Your task to perform on an android device: check storage Image 0: 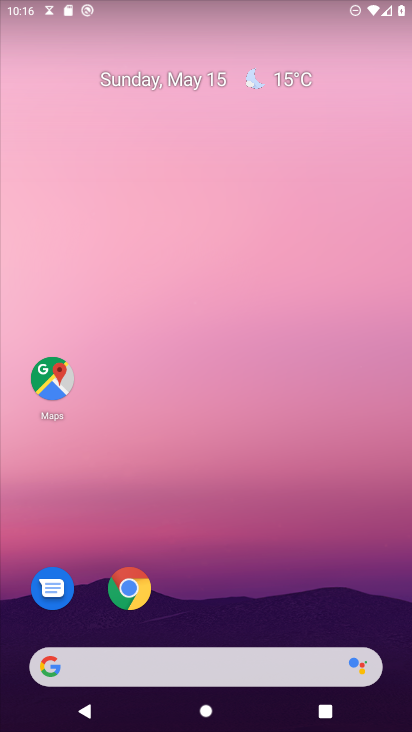
Step 0: drag from (252, 527) to (270, 140)
Your task to perform on an android device: check storage Image 1: 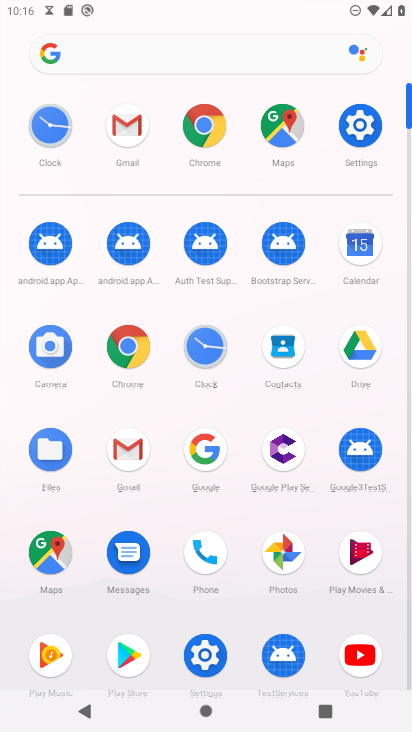
Step 1: click (356, 144)
Your task to perform on an android device: check storage Image 2: 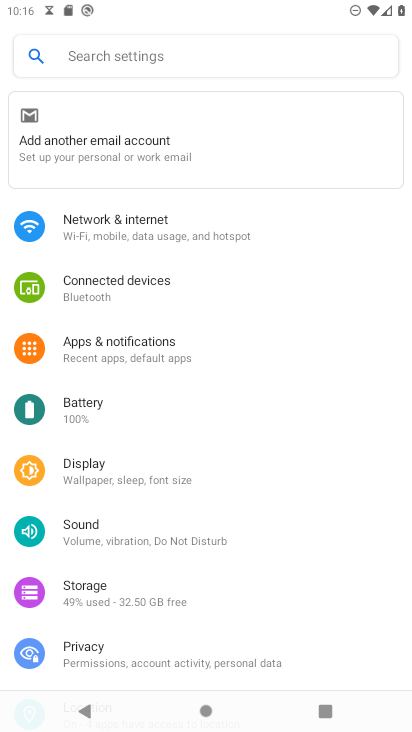
Step 2: click (161, 589)
Your task to perform on an android device: check storage Image 3: 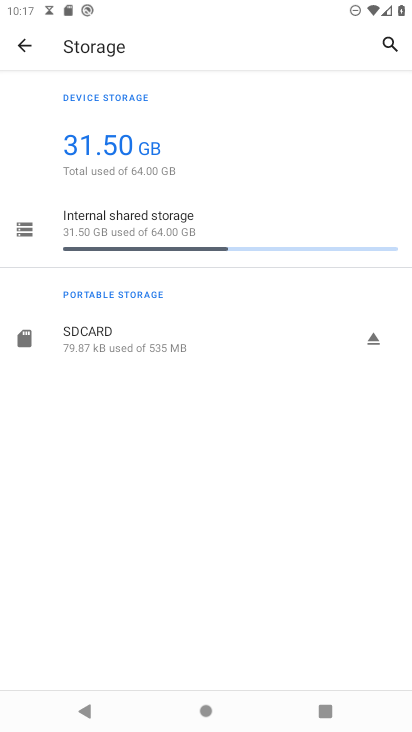
Step 3: click (110, 243)
Your task to perform on an android device: check storage Image 4: 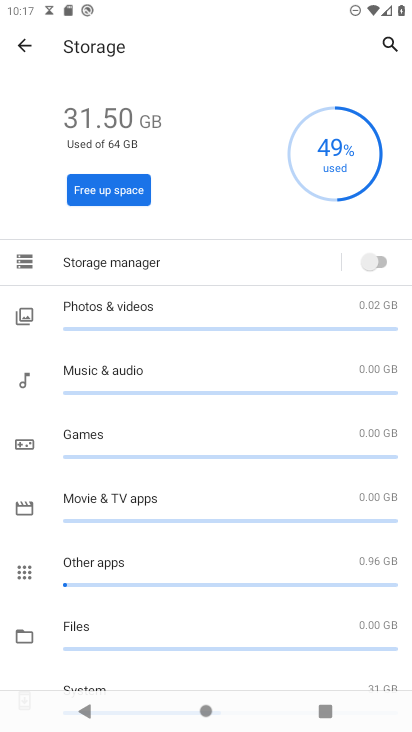
Step 4: task complete